Your task to perform on an android device: Toggle the flashlight Image 0: 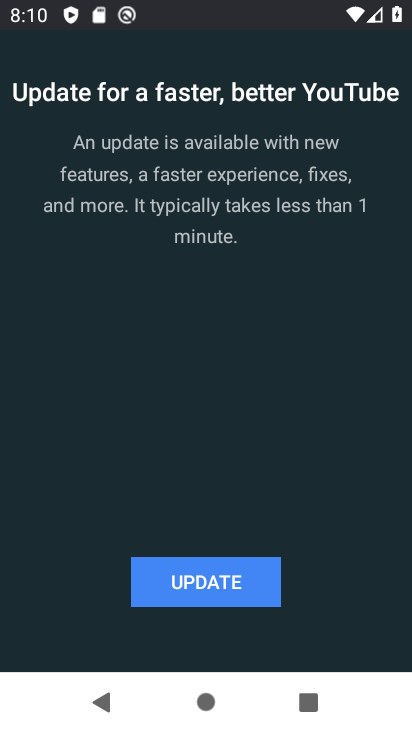
Step 0: press home button
Your task to perform on an android device: Toggle the flashlight Image 1: 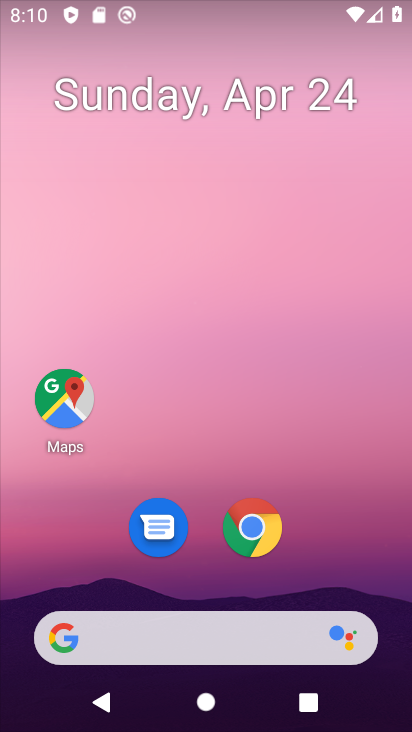
Step 1: drag from (310, 544) to (308, 32)
Your task to perform on an android device: Toggle the flashlight Image 2: 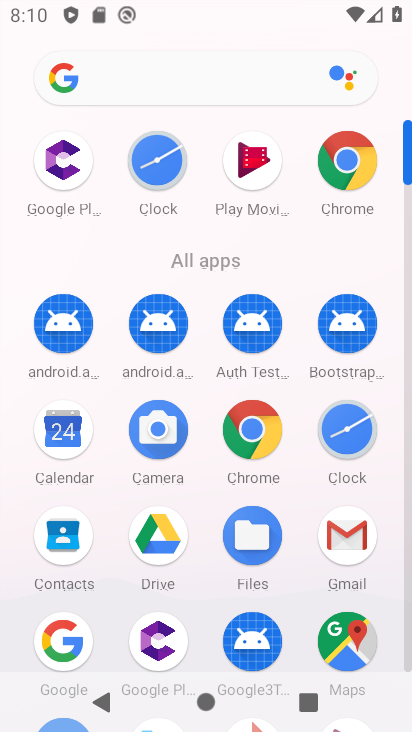
Step 2: drag from (199, 585) to (164, 258)
Your task to perform on an android device: Toggle the flashlight Image 3: 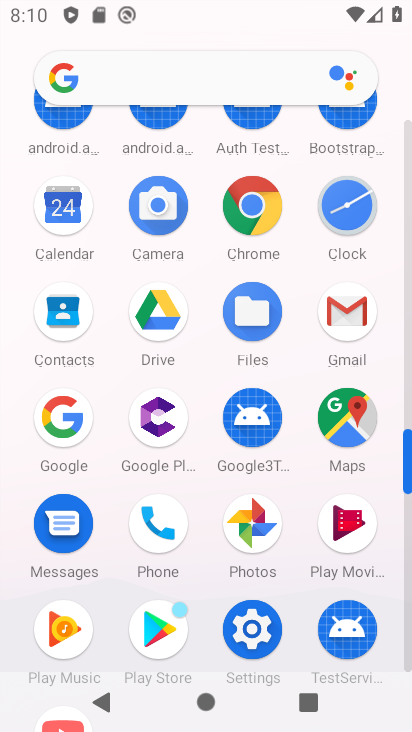
Step 3: click (261, 645)
Your task to perform on an android device: Toggle the flashlight Image 4: 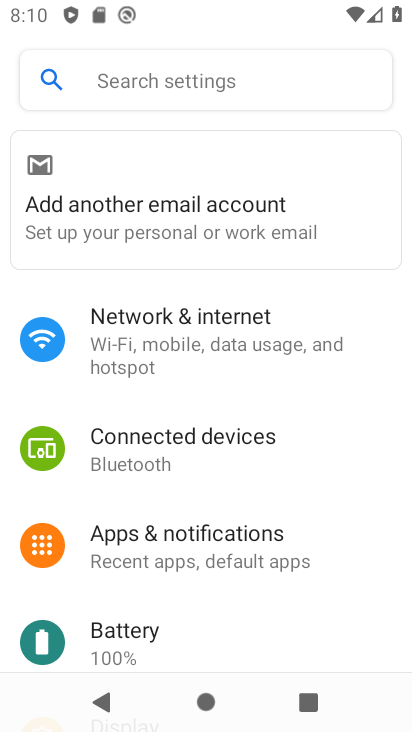
Step 4: click (232, 546)
Your task to perform on an android device: Toggle the flashlight Image 5: 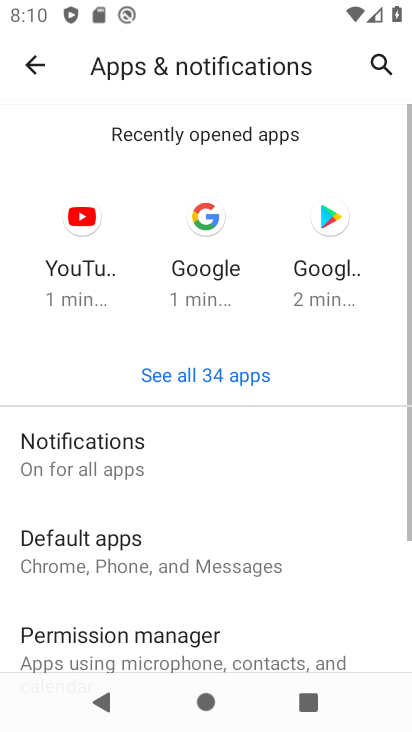
Step 5: drag from (274, 551) to (266, 418)
Your task to perform on an android device: Toggle the flashlight Image 6: 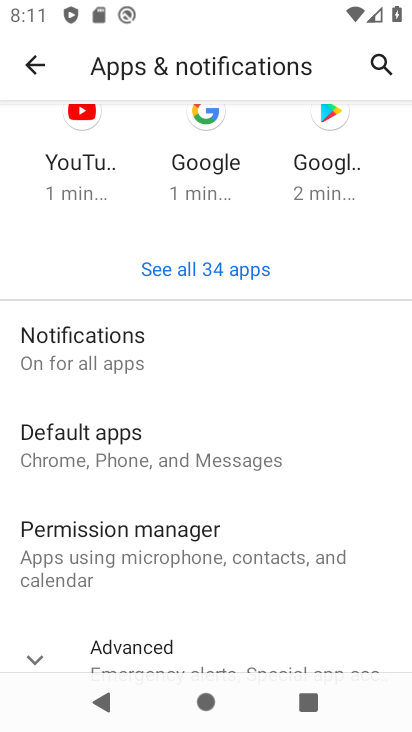
Step 6: click (225, 267)
Your task to perform on an android device: Toggle the flashlight Image 7: 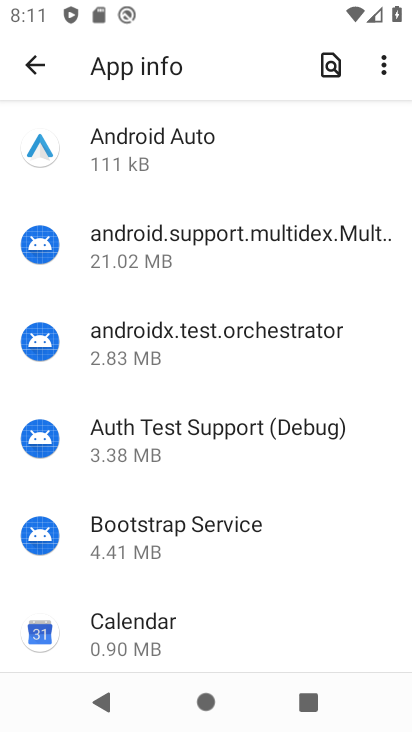
Step 7: task complete